Your task to perform on an android device: search for starred emails in the gmail app Image 0: 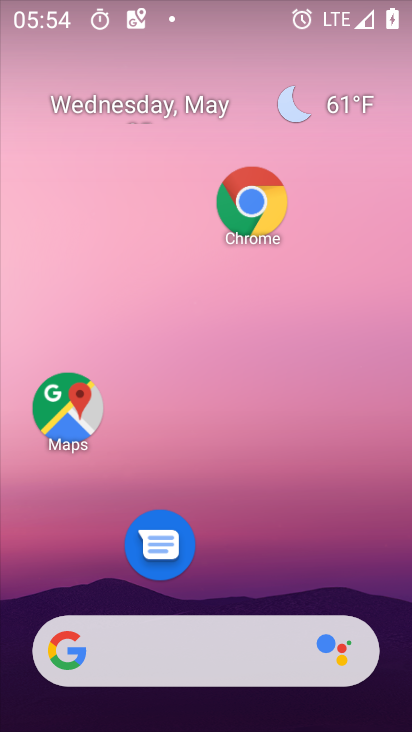
Step 0: drag from (212, 624) to (206, 94)
Your task to perform on an android device: search for starred emails in the gmail app Image 1: 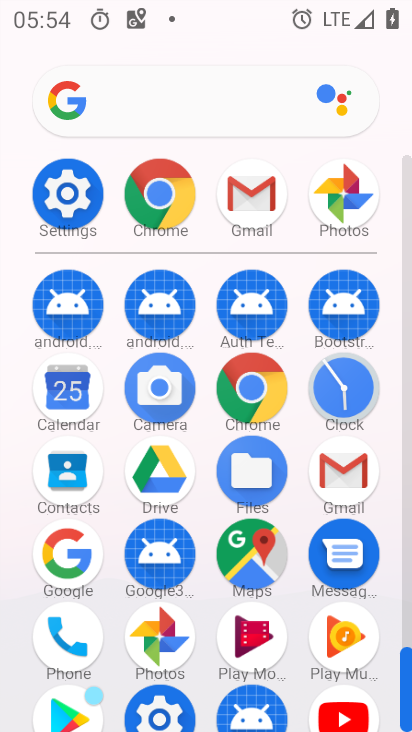
Step 1: click (339, 479)
Your task to perform on an android device: search for starred emails in the gmail app Image 2: 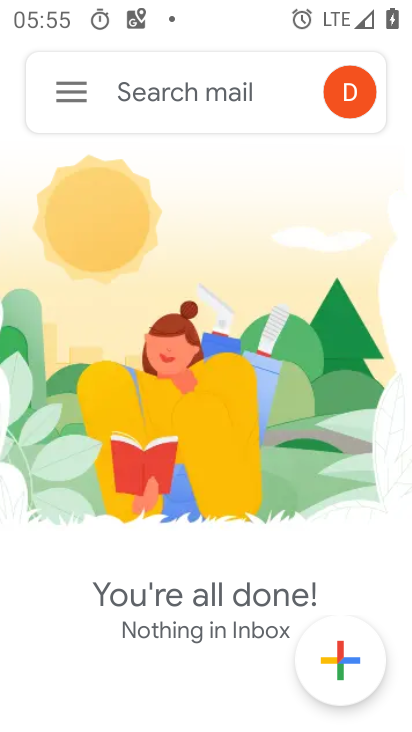
Step 2: click (92, 83)
Your task to perform on an android device: search for starred emails in the gmail app Image 3: 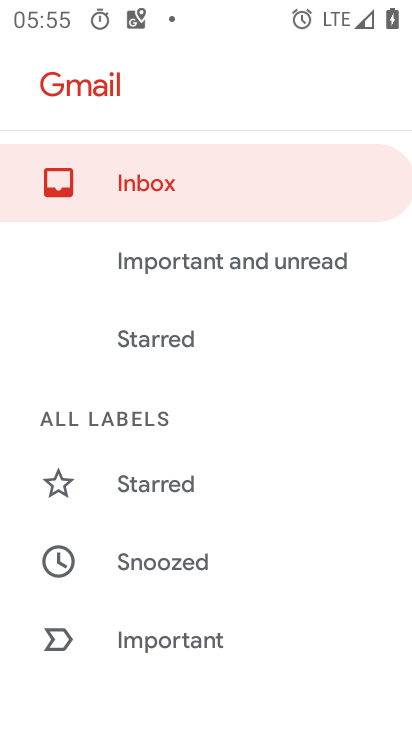
Step 3: drag from (213, 628) to (228, 308)
Your task to perform on an android device: search for starred emails in the gmail app Image 4: 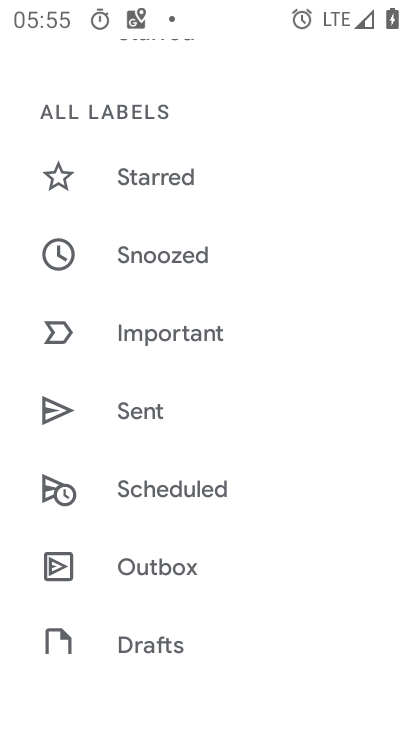
Step 4: click (164, 179)
Your task to perform on an android device: search for starred emails in the gmail app Image 5: 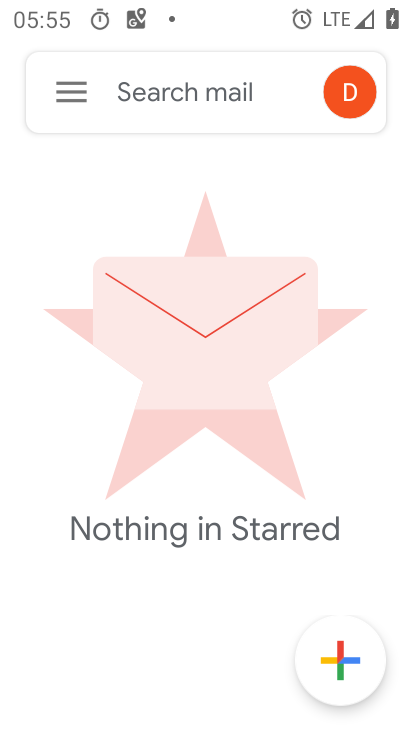
Step 5: task complete